Your task to perform on an android device: open app "Firefox Browser" (install if not already installed) Image 0: 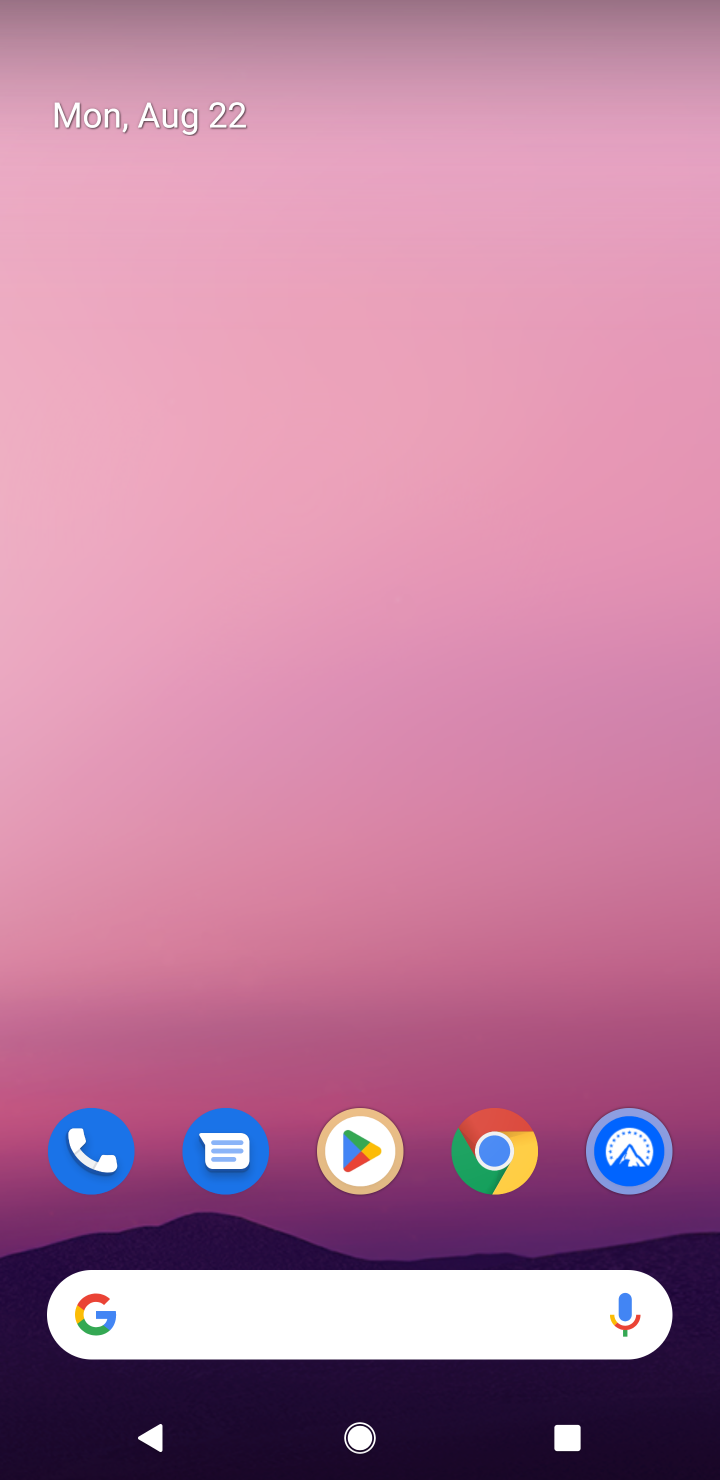
Step 0: press home button
Your task to perform on an android device: open app "Firefox Browser" (install if not already installed) Image 1: 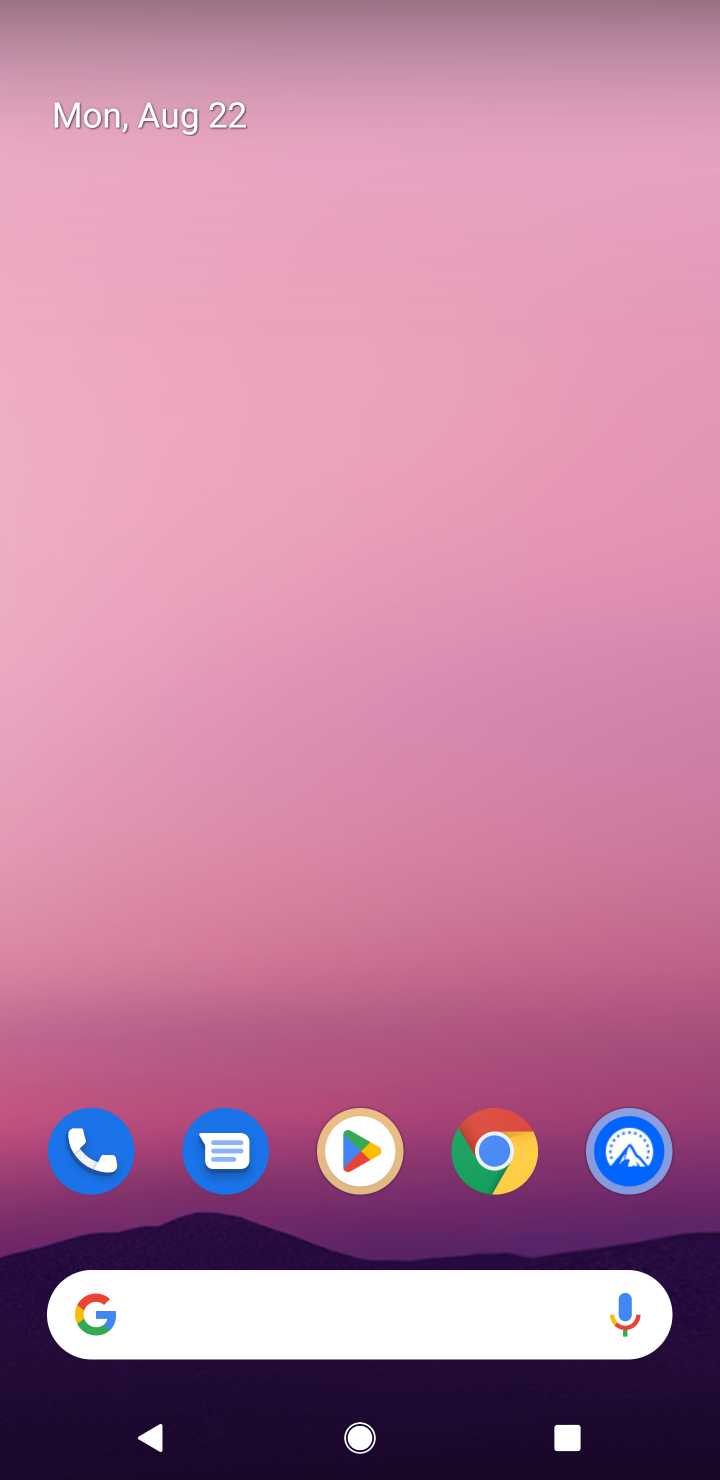
Step 1: click (347, 1146)
Your task to perform on an android device: open app "Firefox Browser" (install if not already installed) Image 2: 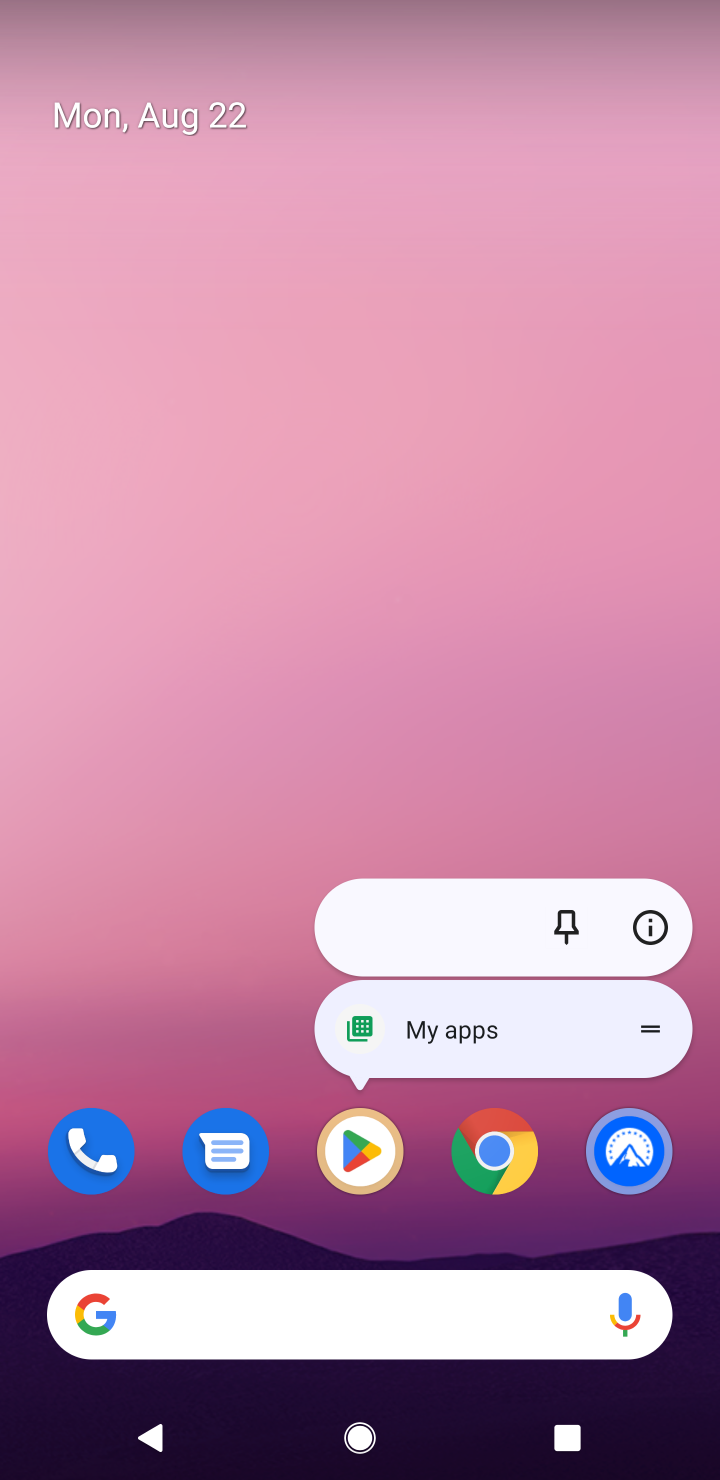
Step 2: click (351, 1162)
Your task to perform on an android device: open app "Firefox Browser" (install if not already installed) Image 3: 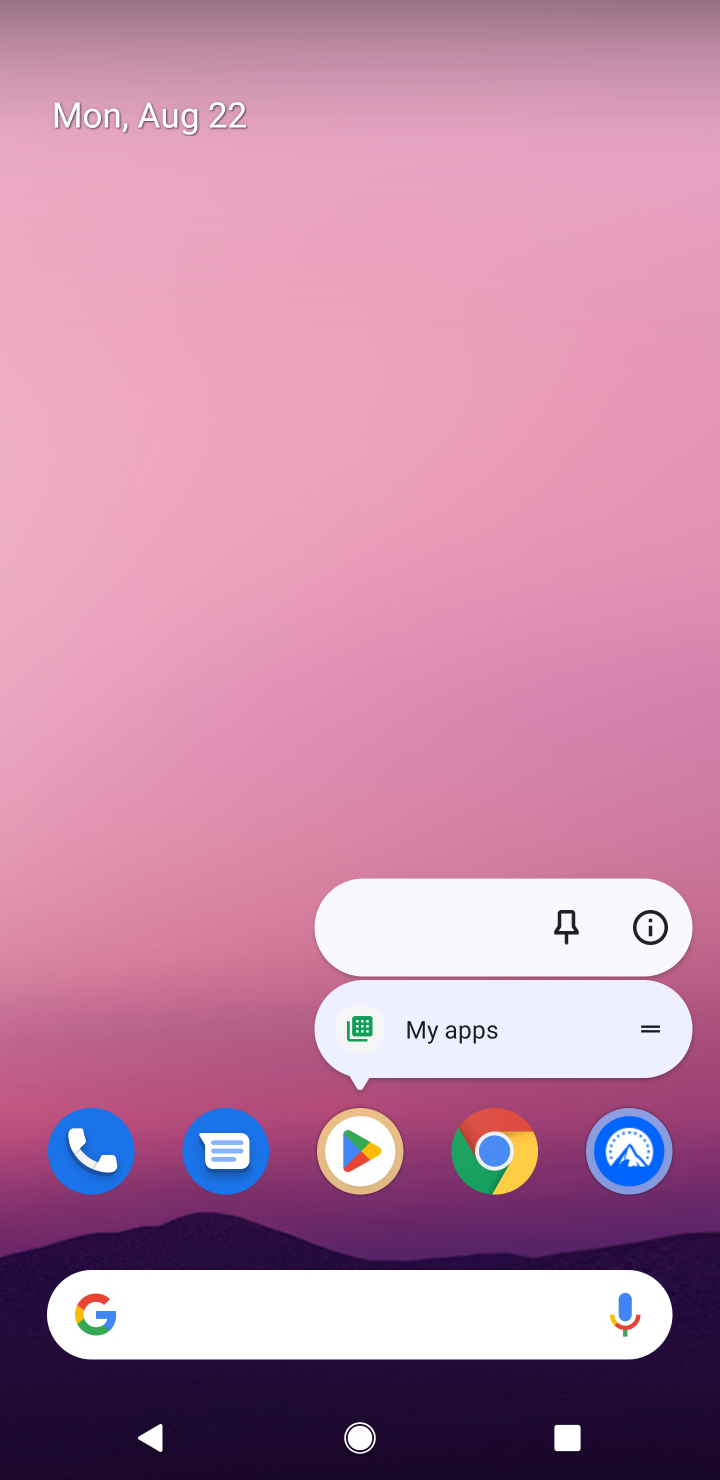
Step 3: click (362, 1138)
Your task to perform on an android device: open app "Firefox Browser" (install if not already installed) Image 4: 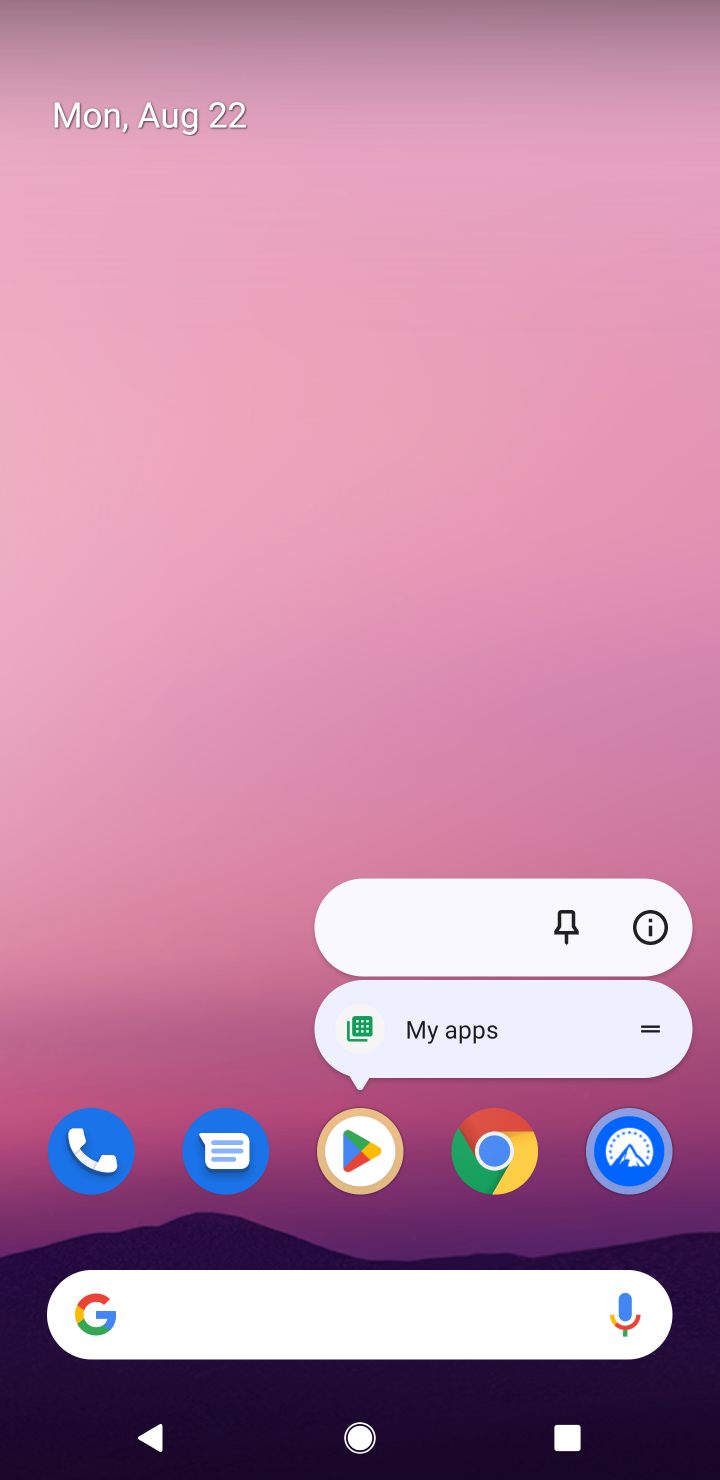
Step 4: click (363, 1150)
Your task to perform on an android device: open app "Firefox Browser" (install if not already installed) Image 5: 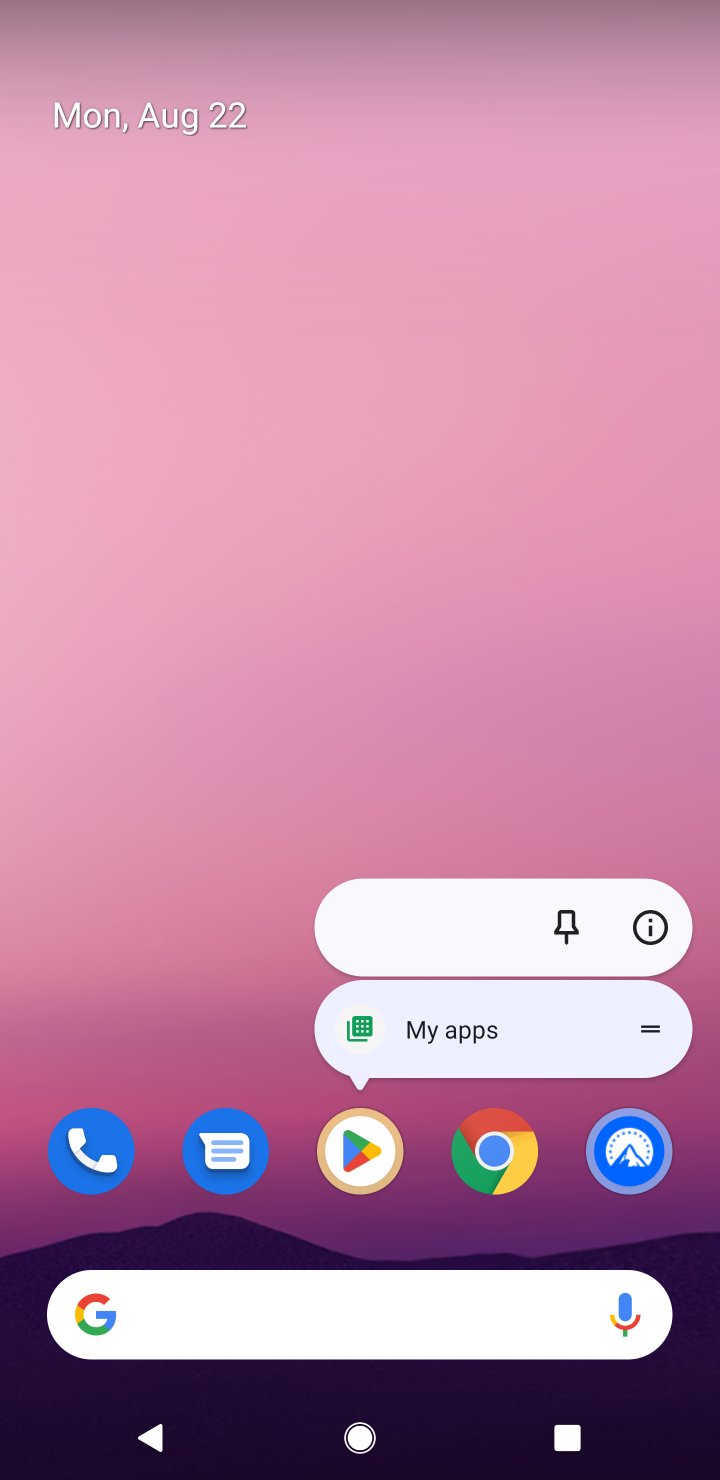
Step 5: click (366, 1163)
Your task to perform on an android device: open app "Firefox Browser" (install if not already installed) Image 6: 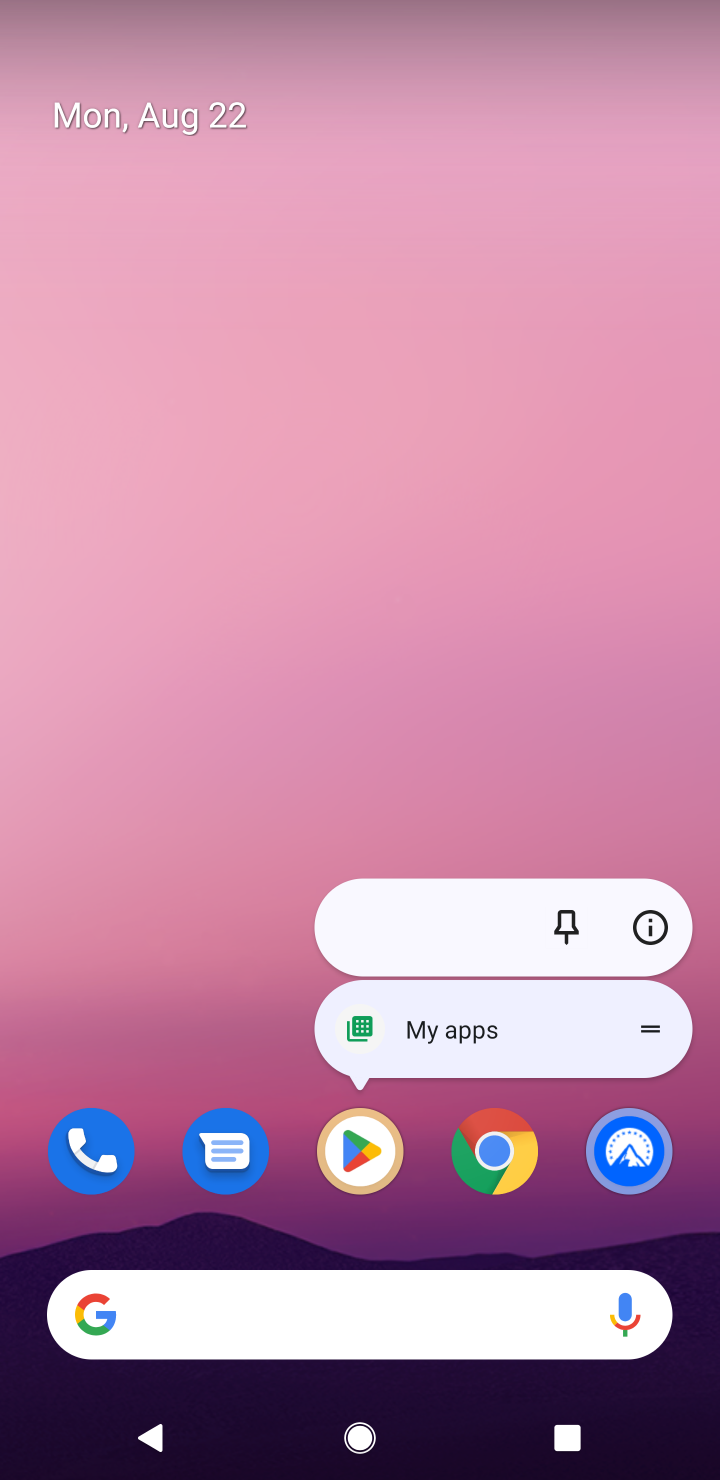
Step 6: click (352, 1134)
Your task to perform on an android device: open app "Firefox Browser" (install if not already installed) Image 7: 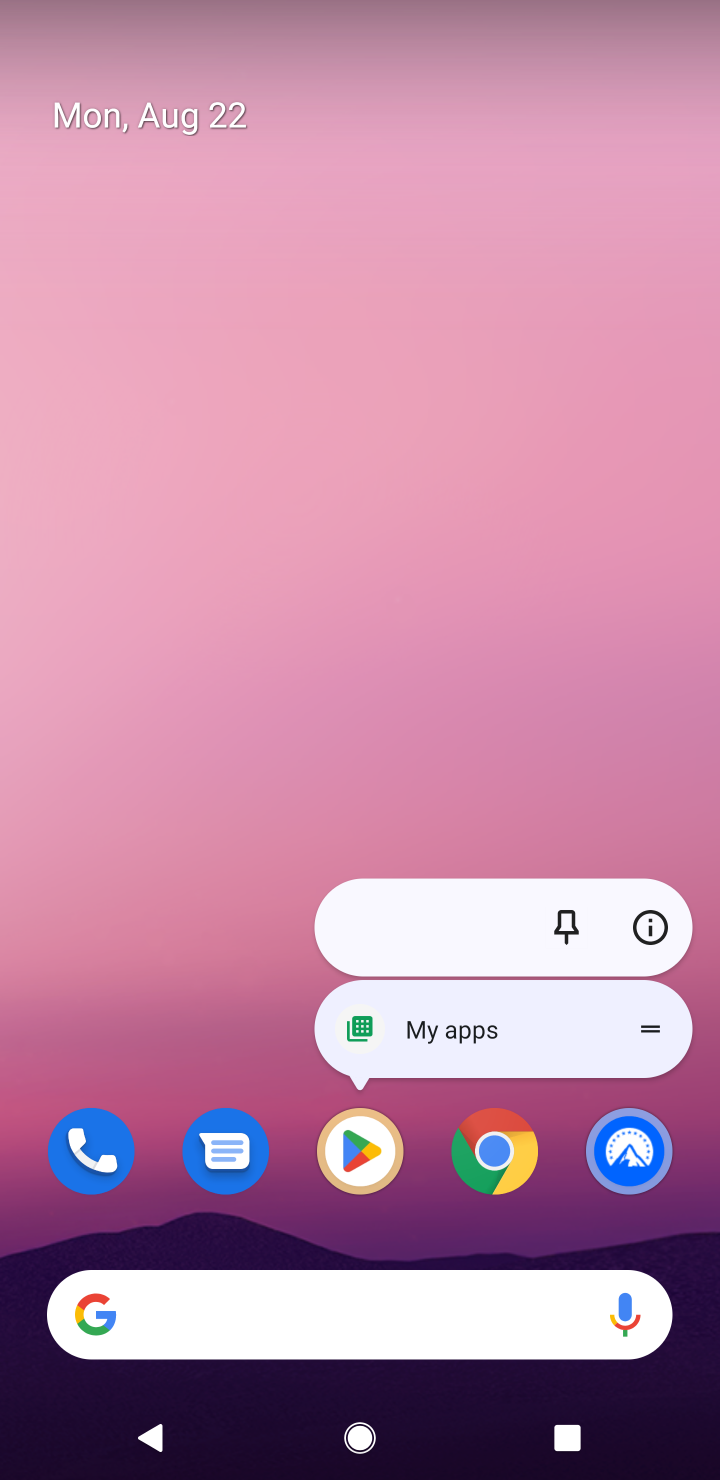
Step 7: click (361, 1153)
Your task to perform on an android device: open app "Firefox Browser" (install if not already installed) Image 8: 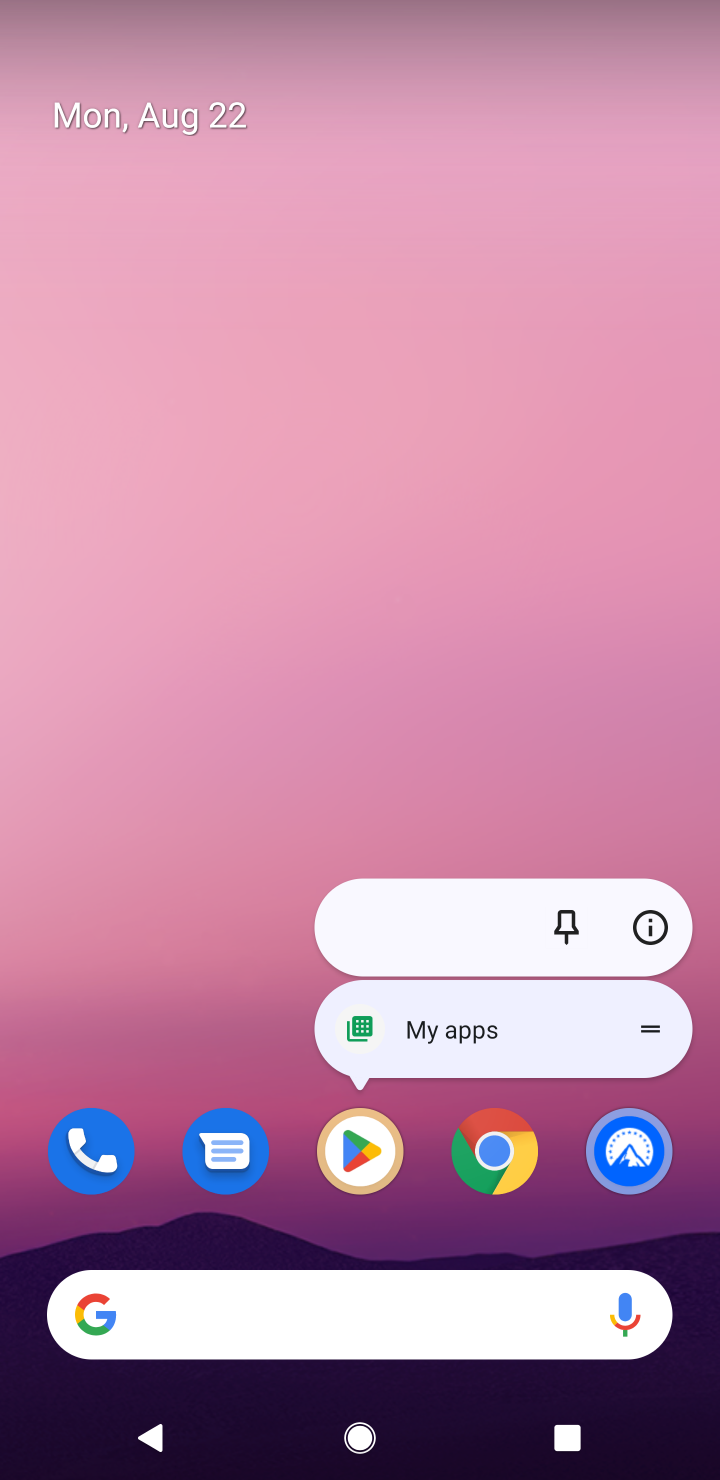
Step 8: click (363, 1165)
Your task to perform on an android device: open app "Firefox Browser" (install if not already installed) Image 9: 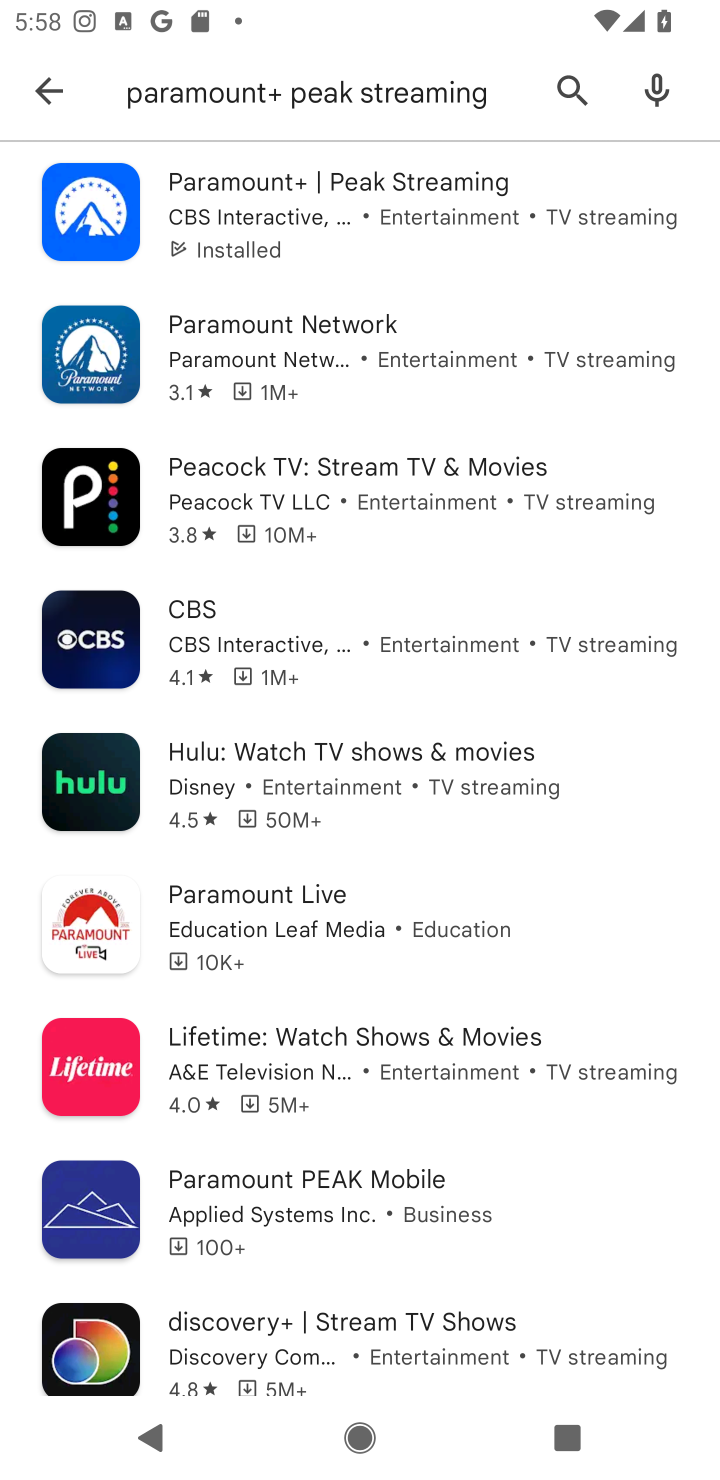
Step 9: click (566, 74)
Your task to perform on an android device: open app "Firefox Browser" (install if not already installed) Image 10: 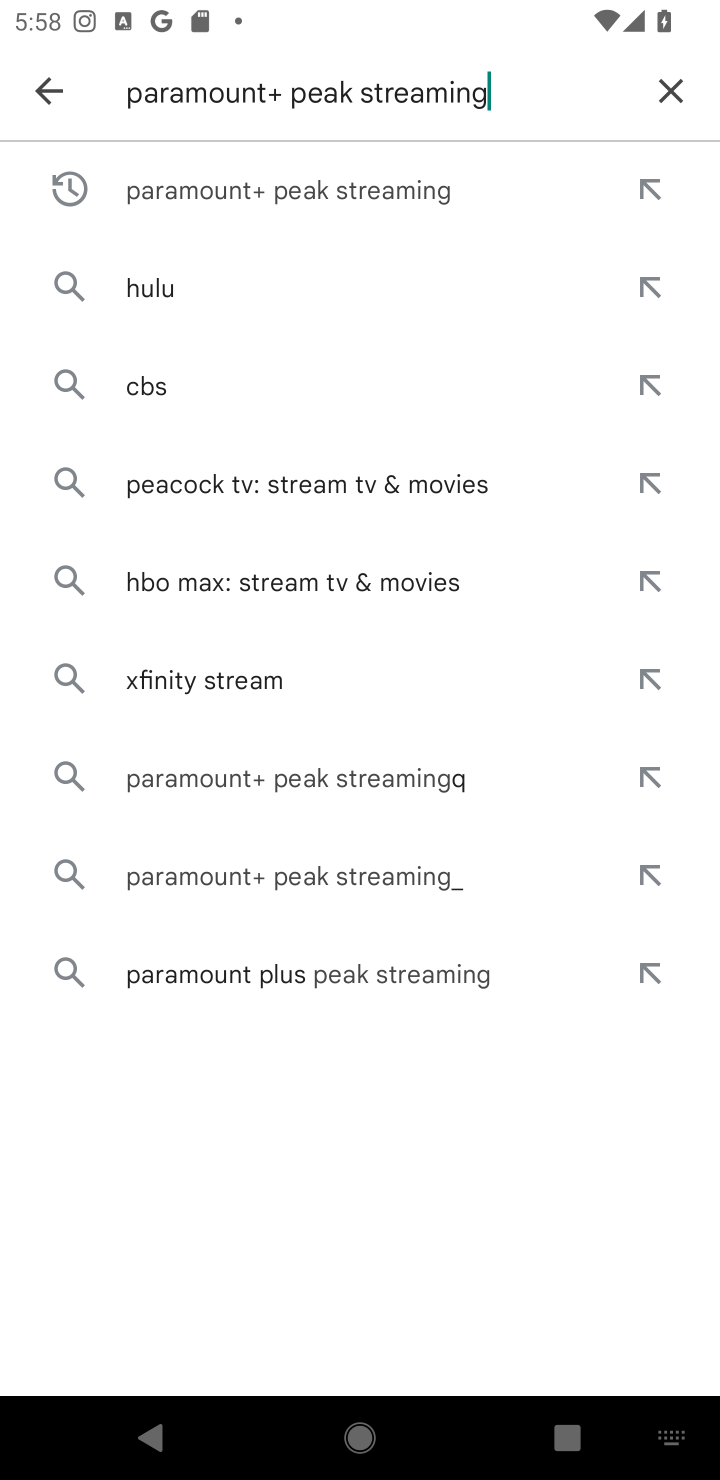
Step 10: click (681, 78)
Your task to perform on an android device: open app "Firefox Browser" (install if not already installed) Image 11: 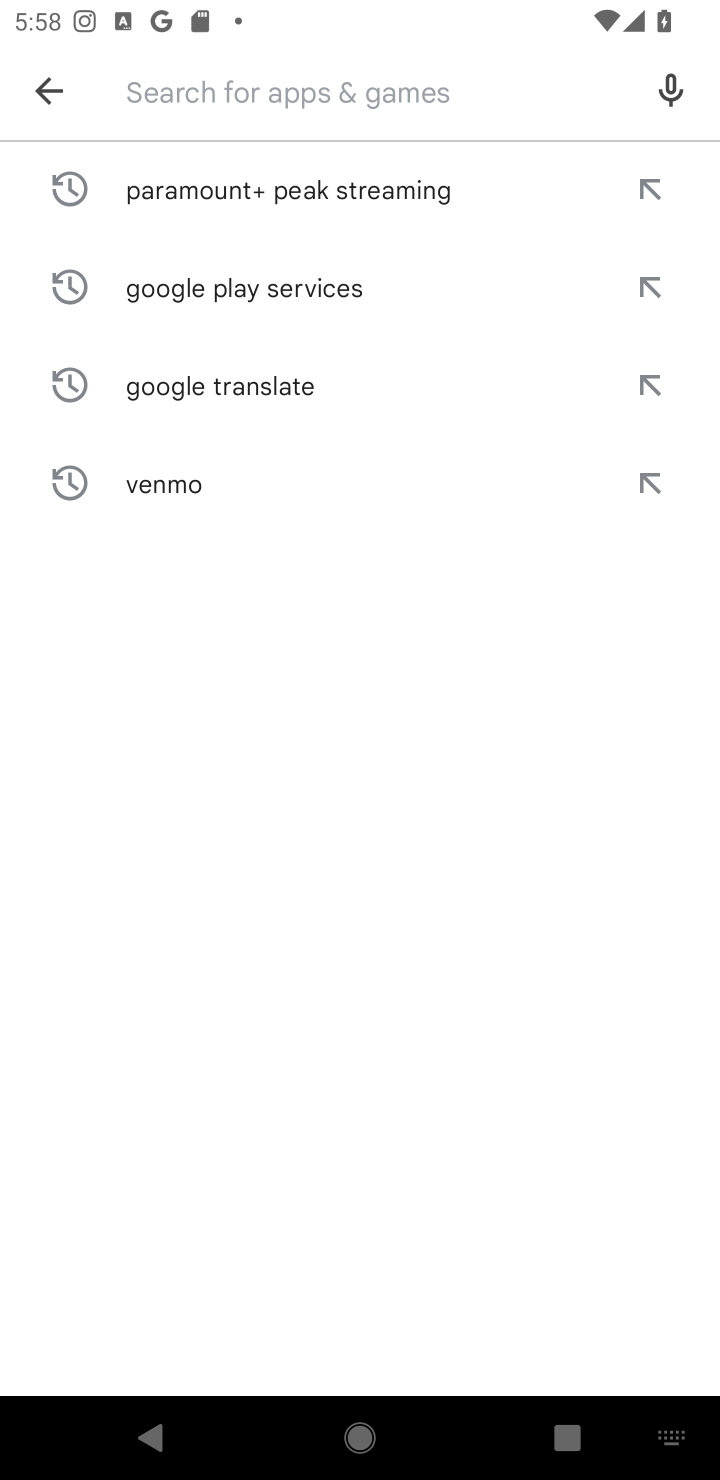
Step 11: type "Firefox Browser"
Your task to perform on an android device: open app "Firefox Browser" (install if not already installed) Image 12: 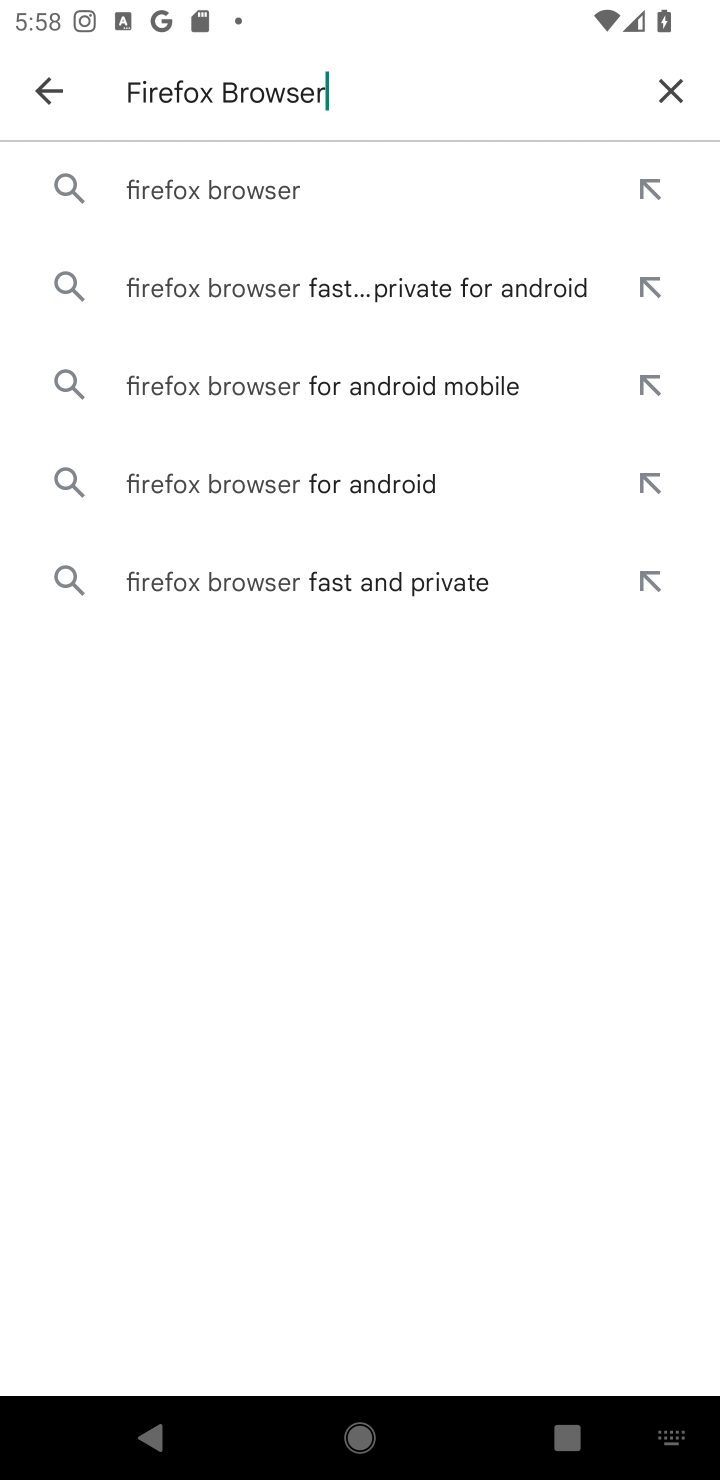
Step 12: click (275, 199)
Your task to perform on an android device: open app "Firefox Browser" (install if not already installed) Image 13: 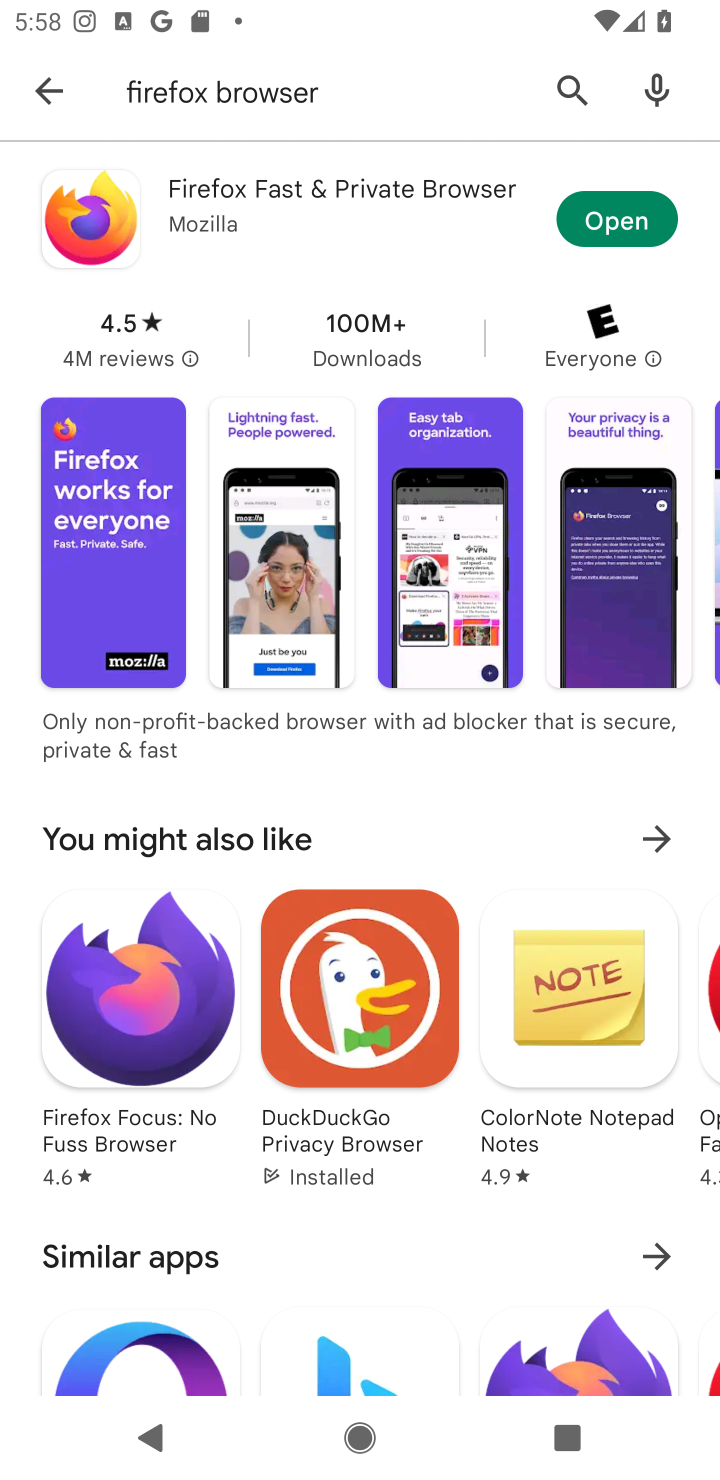
Step 13: click (605, 221)
Your task to perform on an android device: open app "Firefox Browser" (install if not already installed) Image 14: 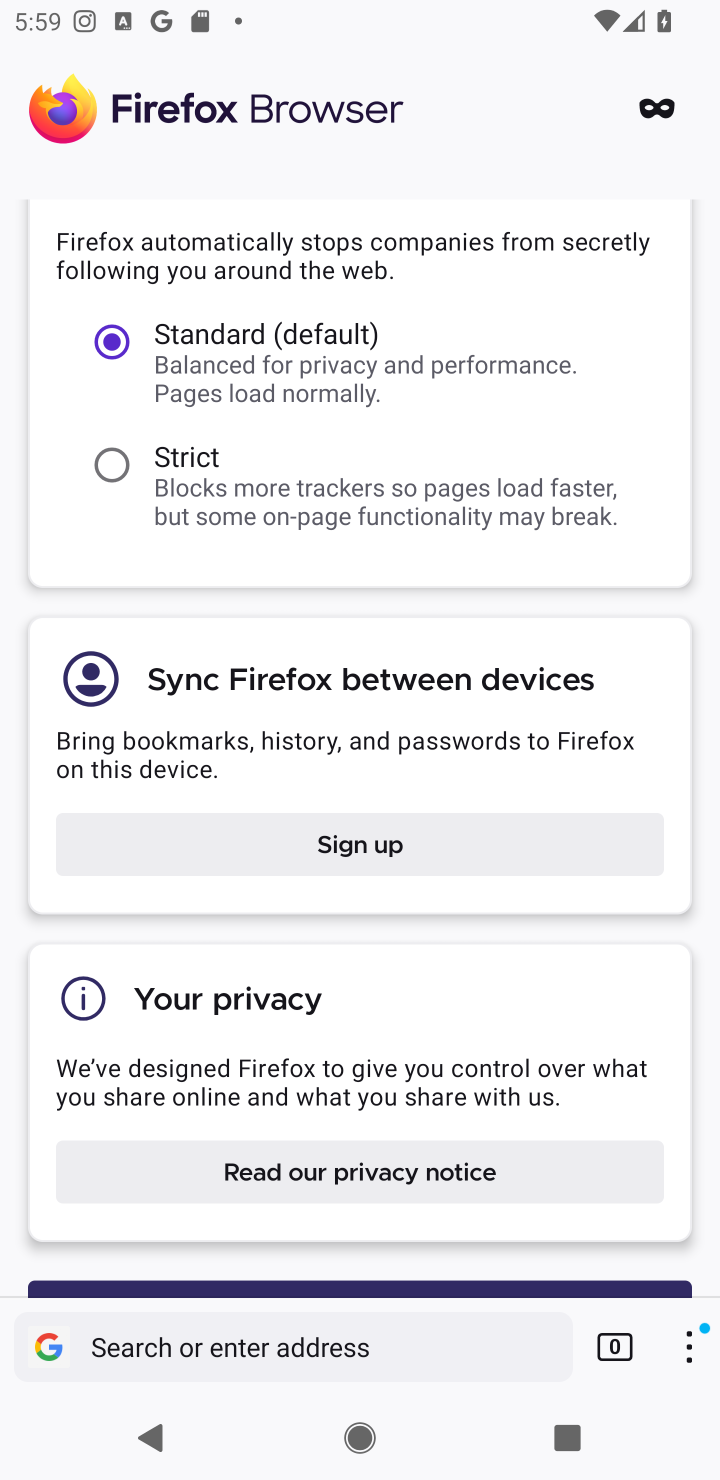
Step 14: task complete